Your task to perform on an android device: open app "Firefox Browser" Image 0: 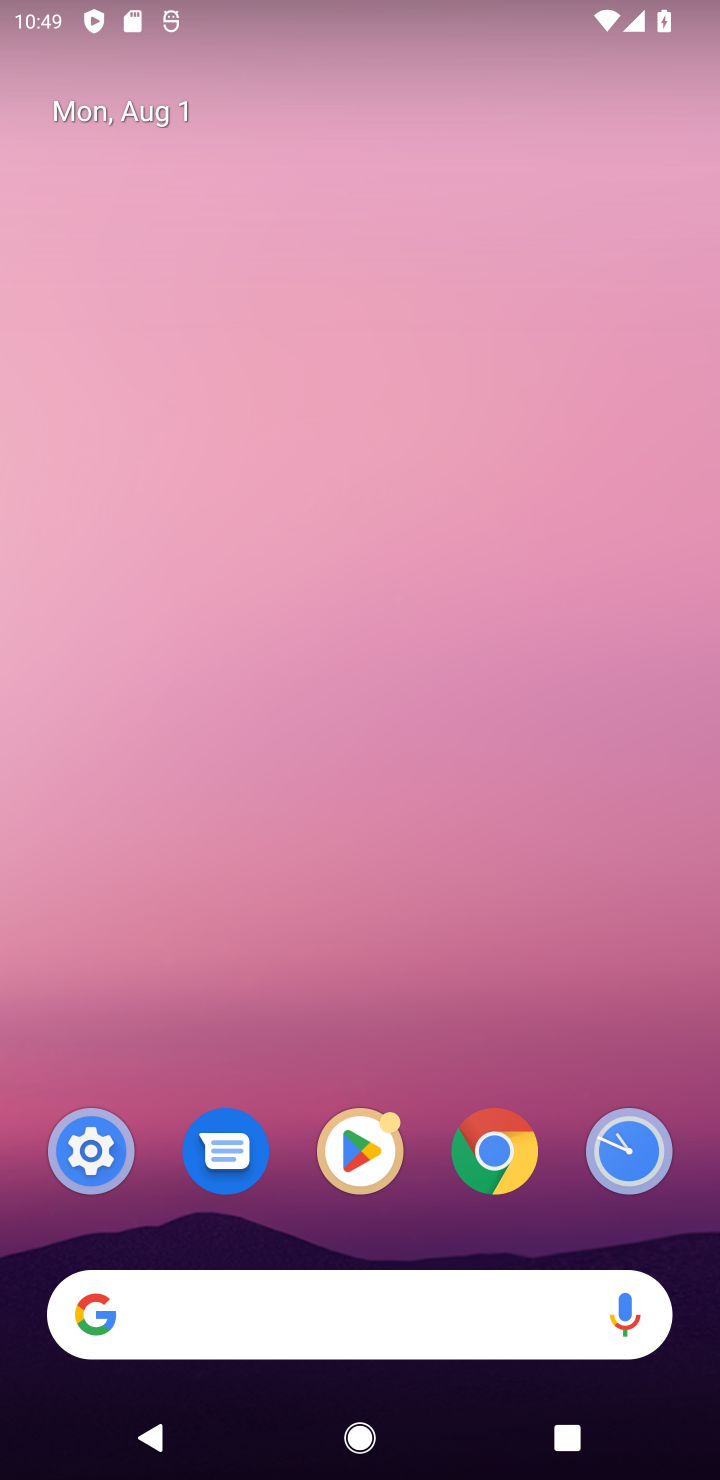
Step 0: drag from (307, 1102) to (235, 28)
Your task to perform on an android device: open app "Firefox Browser" Image 1: 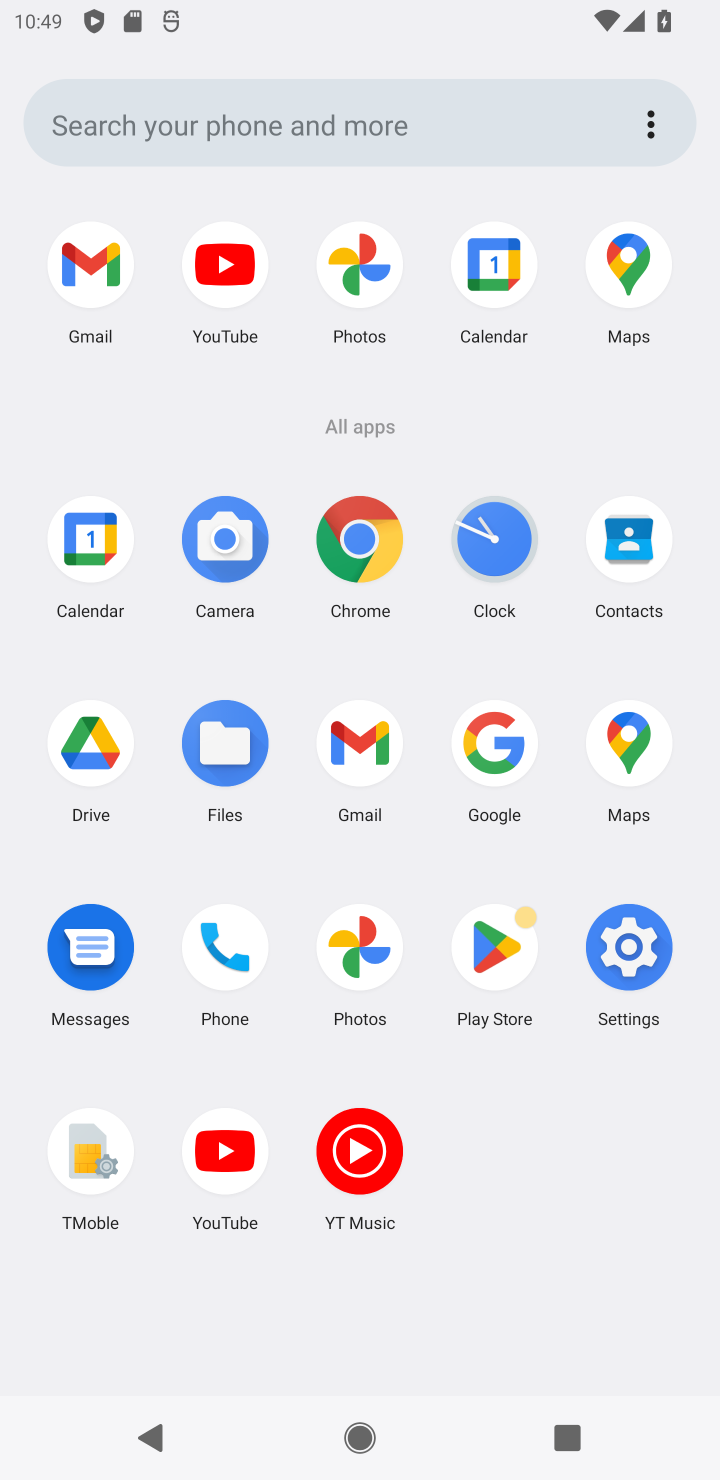
Step 1: click (486, 960)
Your task to perform on an android device: open app "Firefox Browser" Image 2: 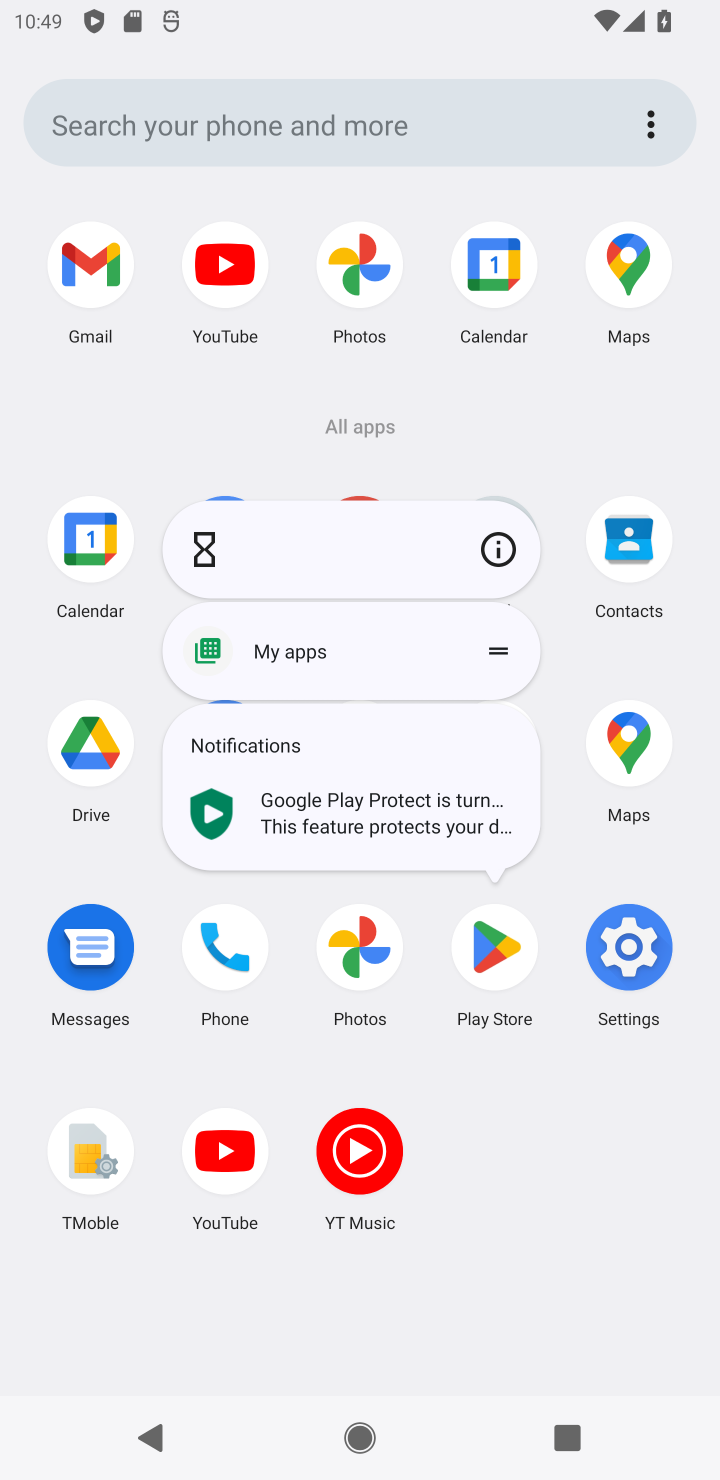
Step 2: click (499, 977)
Your task to perform on an android device: open app "Firefox Browser" Image 3: 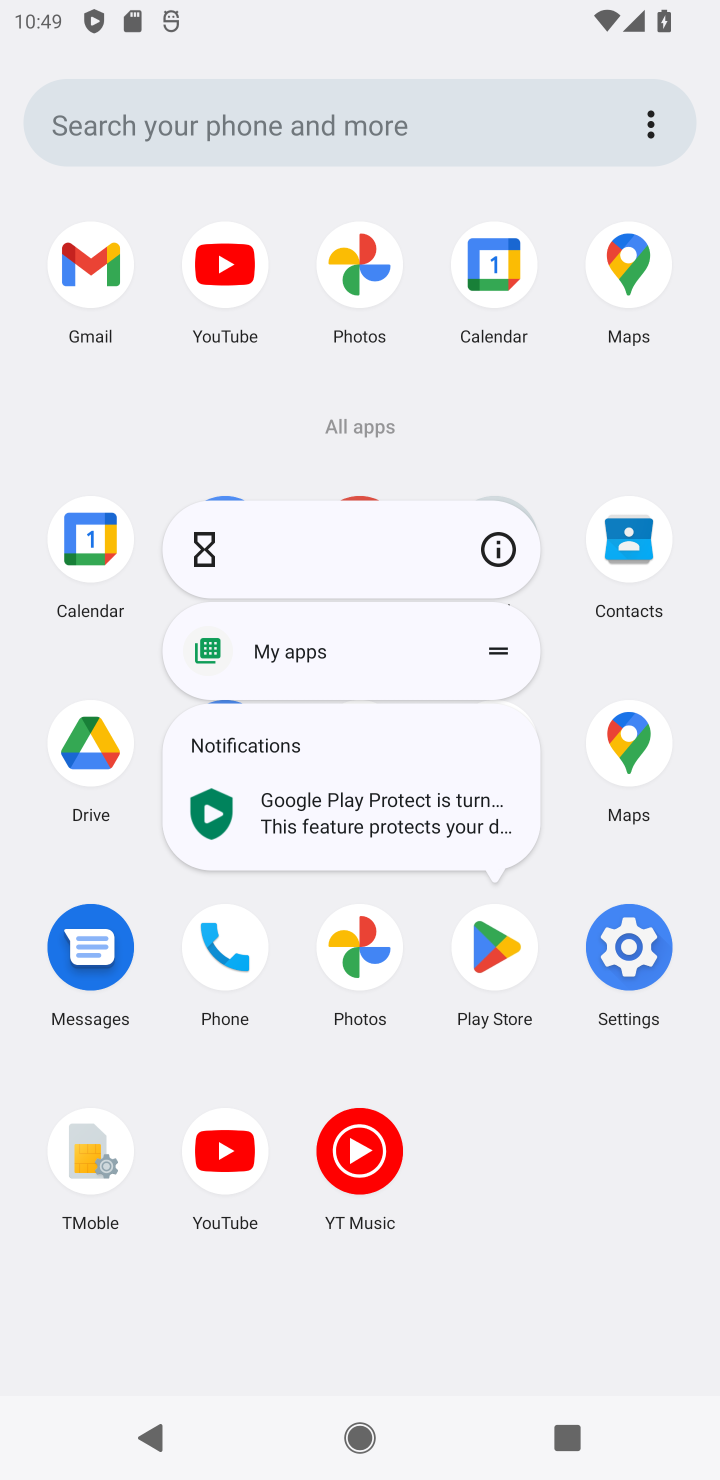
Step 3: click (524, 960)
Your task to perform on an android device: open app "Firefox Browser" Image 4: 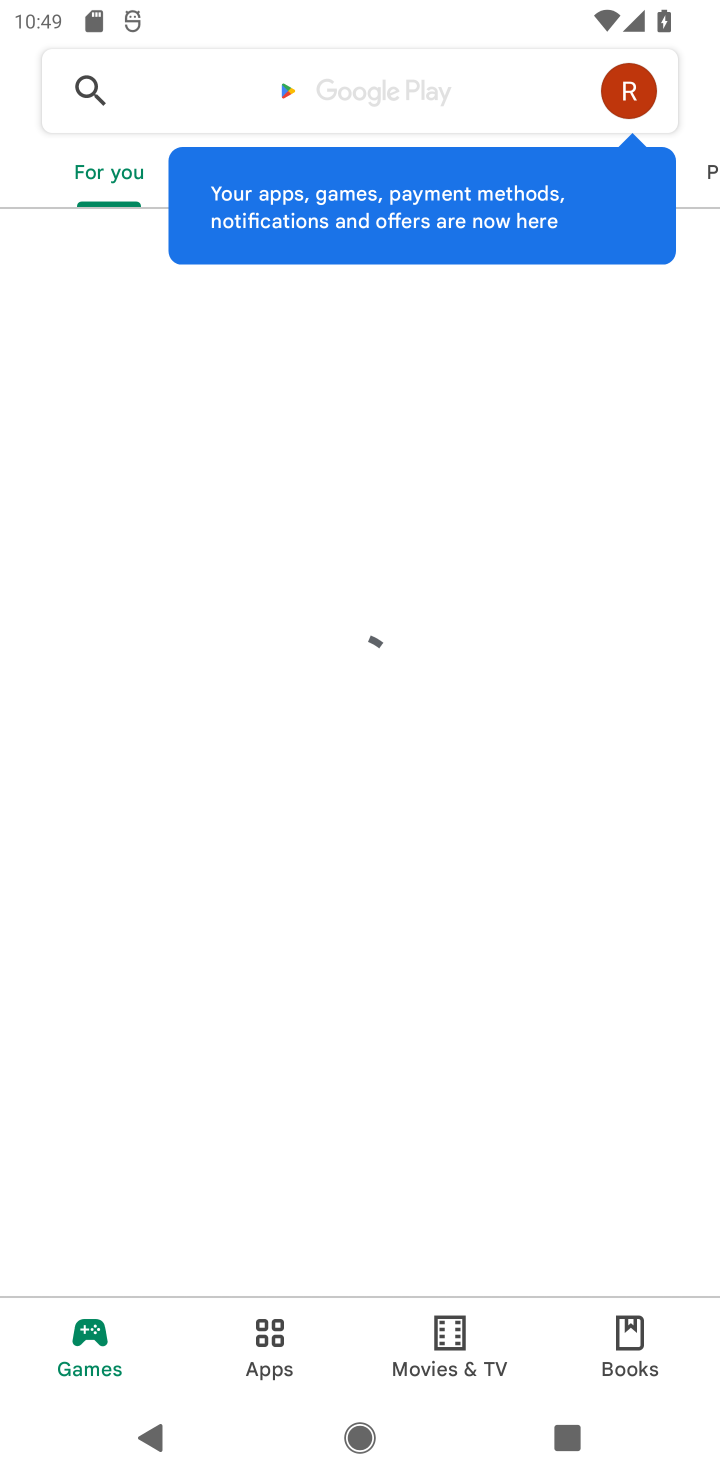
Step 4: click (271, 106)
Your task to perform on an android device: open app "Firefox Browser" Image 5: 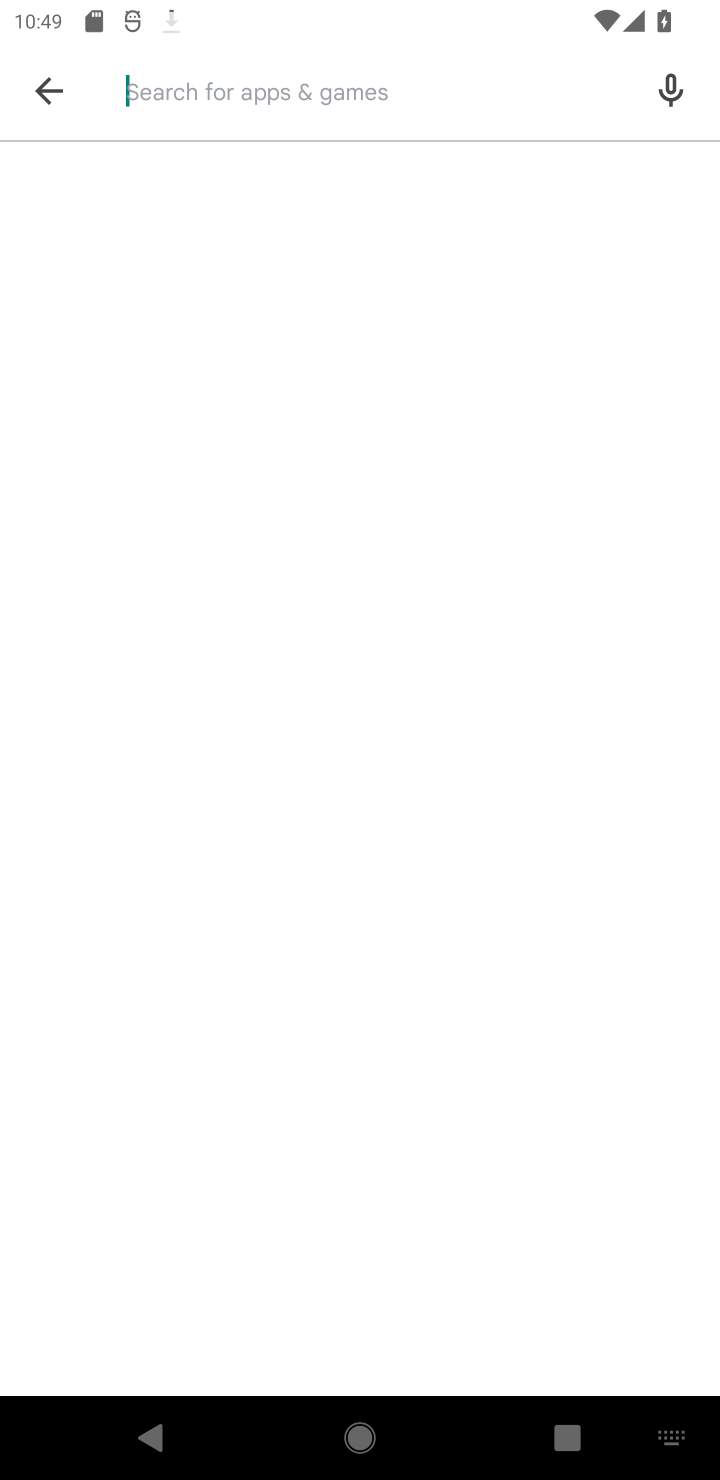
Step 5: type "Firefox Browser"
Your task to perform on an android device: open app "Firefox Browser" Image 6: 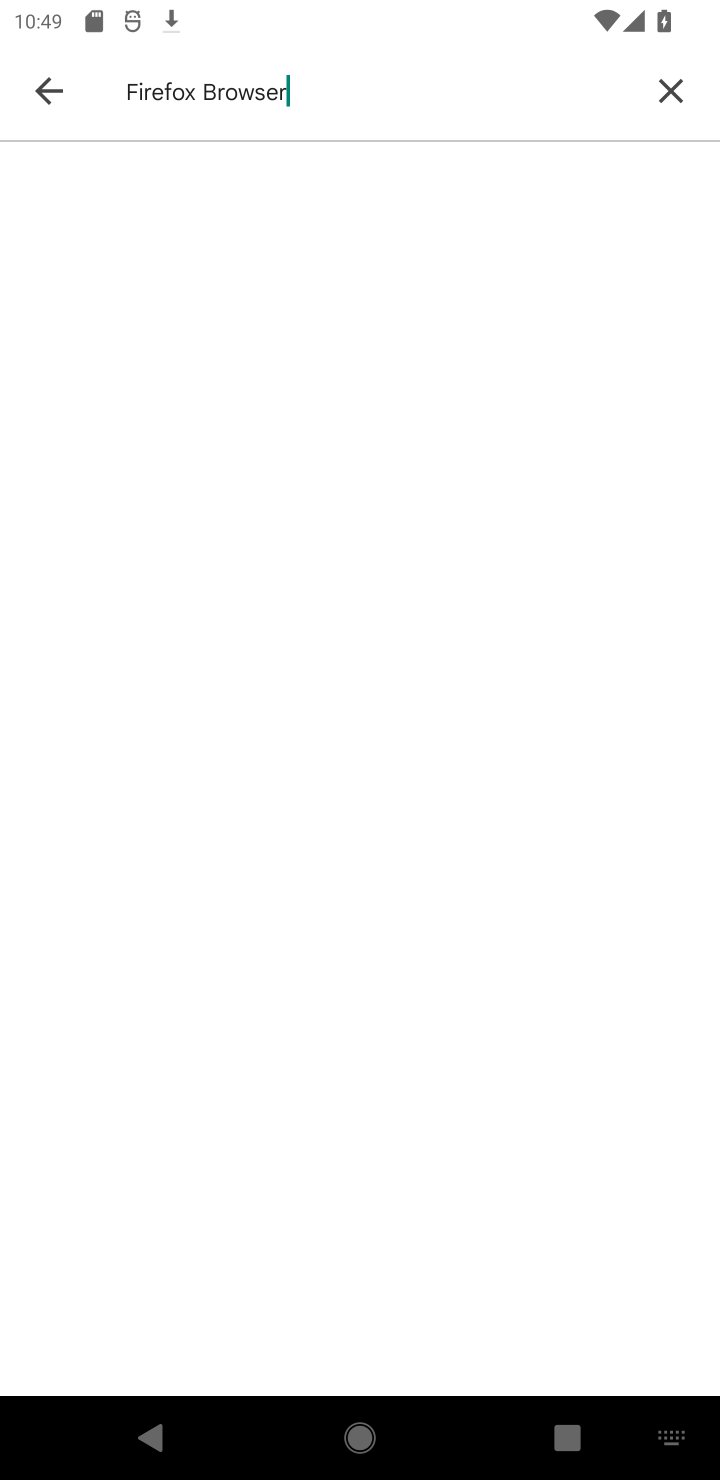
Step 6: type ""
Your task to perform on an android device: open app "Firefox Browser" Image 7: 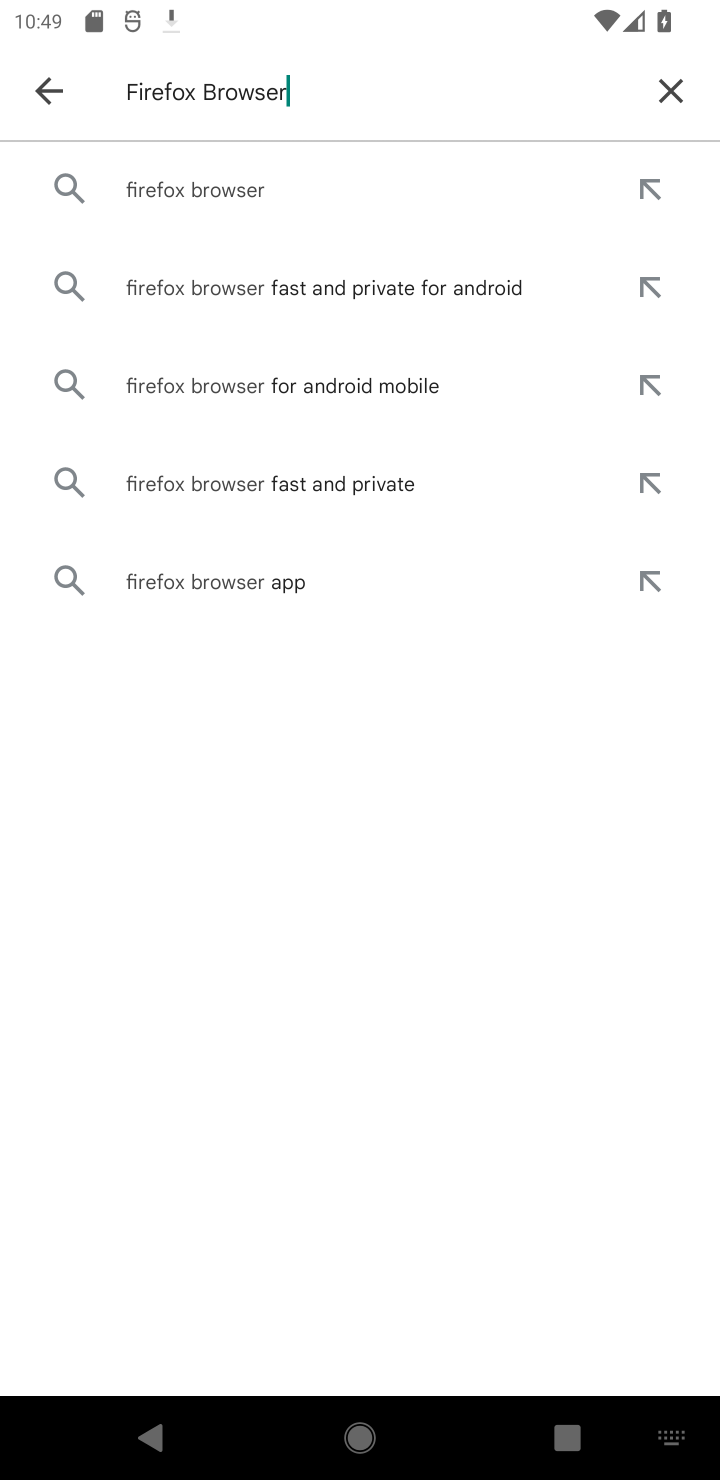
Step 7: click (117, 193)
Your task to perform on an android device: open app "Firefox Browser" Image 8: 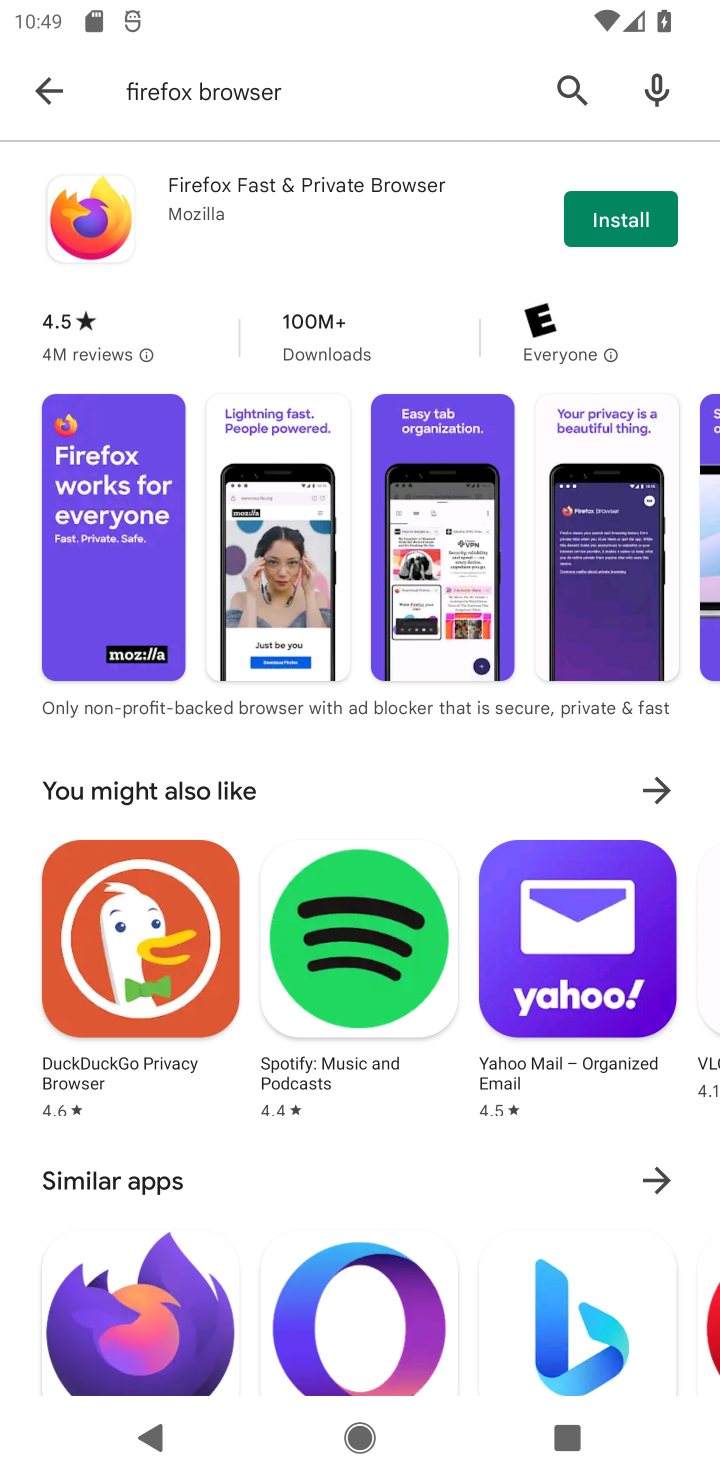
Step 8: click (633, 217)
Your task to perform on an android device: open app "Firefox Browser" Image 9: 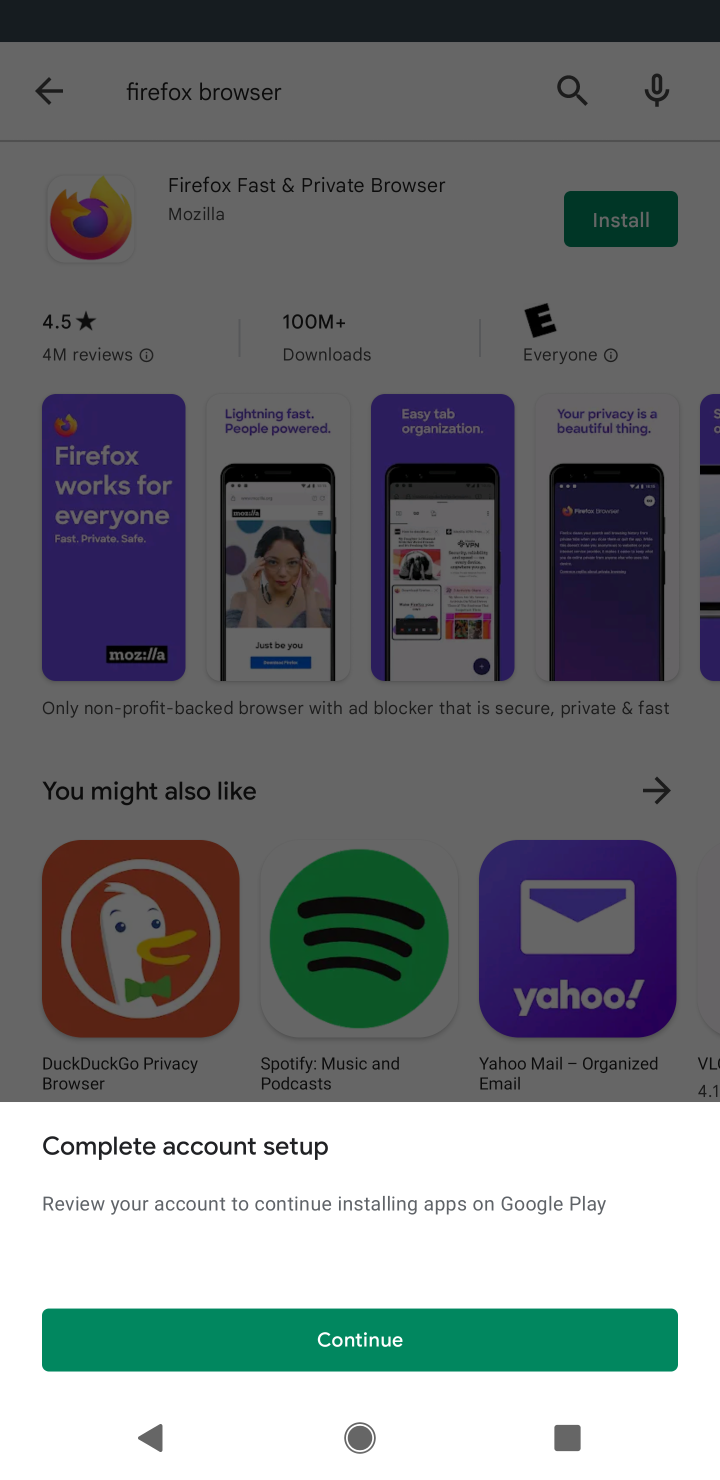
Step 9: task complete